Your task to perform on an android device: Go to internet settings Image 0: 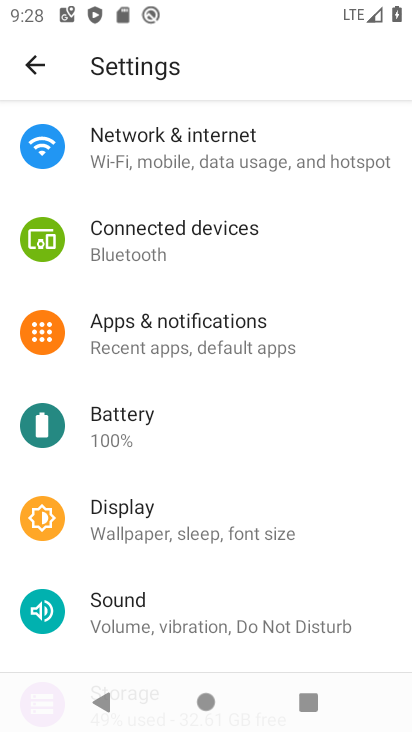
Step 0: click (249, 154)
Your task to perform on an android device: Go to internet settings Image 1: 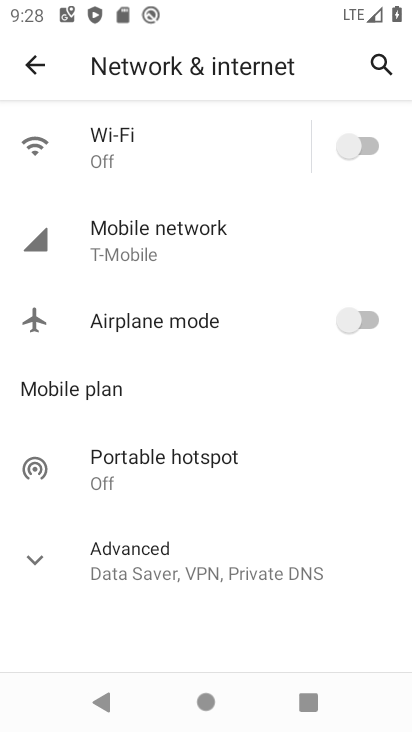
Step 1: task complete